Your task to perform on an android device: check out phone information Image 0: 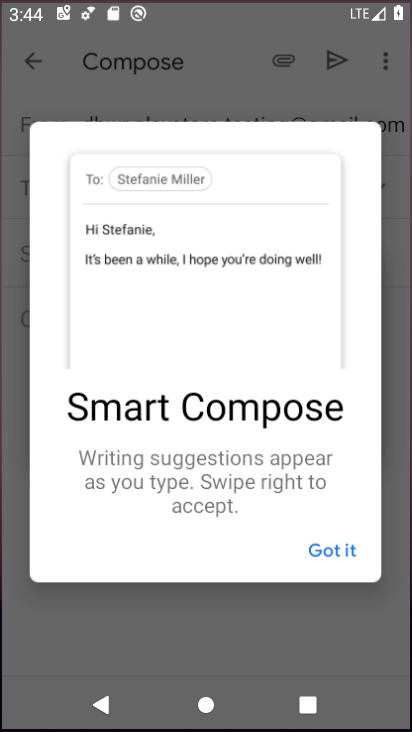
Step 0: drag from (359, 452) to (196, 8)
Your task to perform on an android device: check out phone information Image 1: 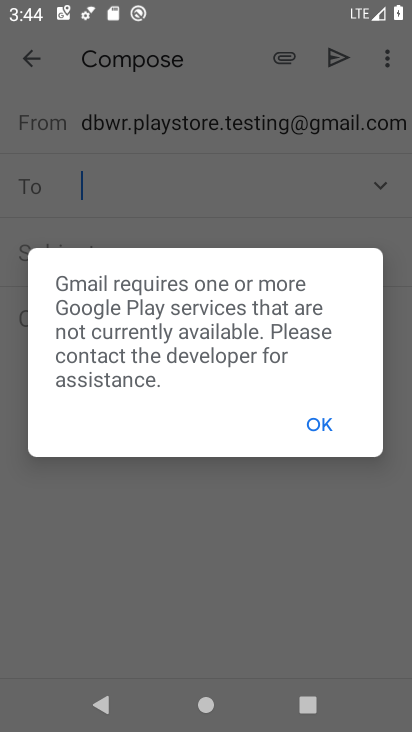
Step 1: press home button
Your task to perform on an android device: check out phone information Image 2: 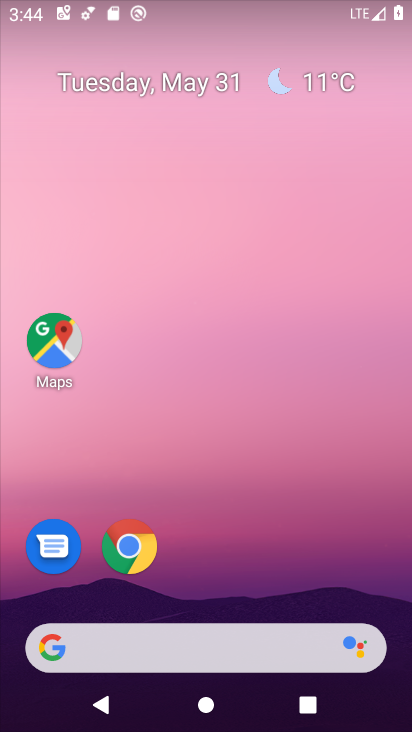
Step 2: drag from (274, 515) to (233, 25)
Your task to perform on an android device: check out phone information Image 3: 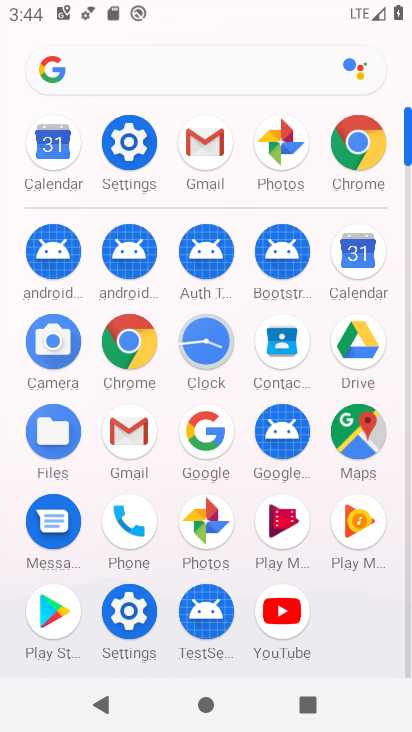
Step 3: click (140, 133)
Your task to perform on an android device: check out phone information Image 4: 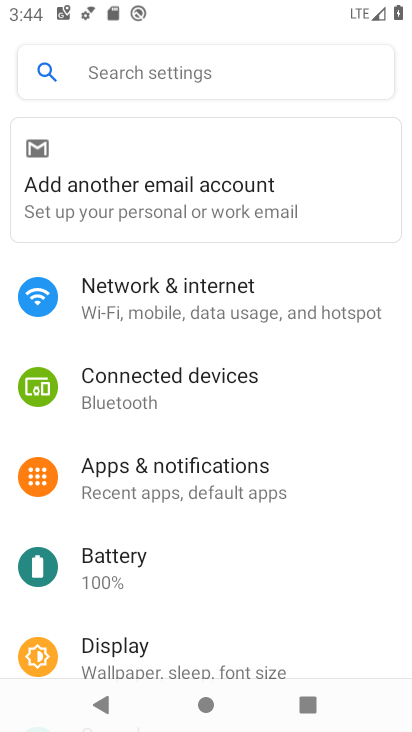
Step 4: drag from (253, 494) to (220, 104)
Your task to perform on an android device: check out phone information Image 5: 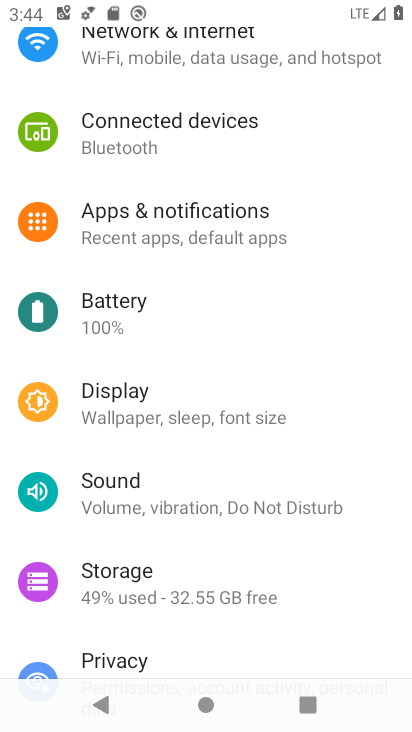
Step 5: drag from (267, 649) to (271, 161)
Your task to perform on an android device: check out phone information Image 6: 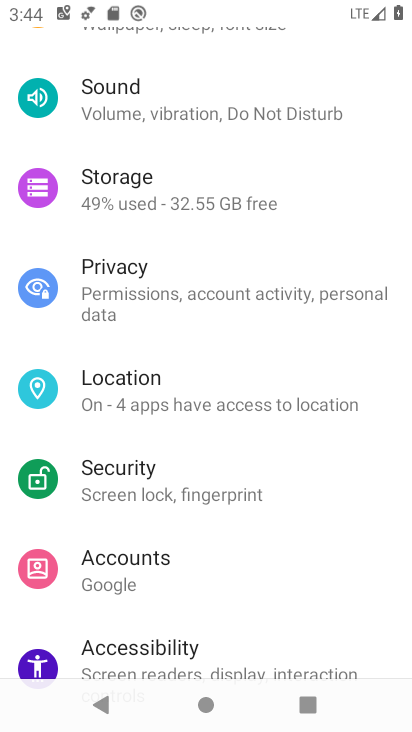
Step 6: drag from (240, 637) to (306, 231)
Your task to perform on an android device: check out phone information Image 7: 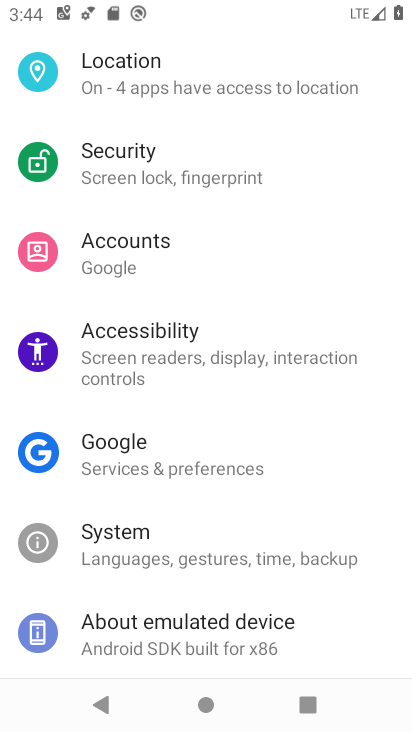
Step 7: click (191, 632)
Your task to perform on an android device: check out phone information Image 8: 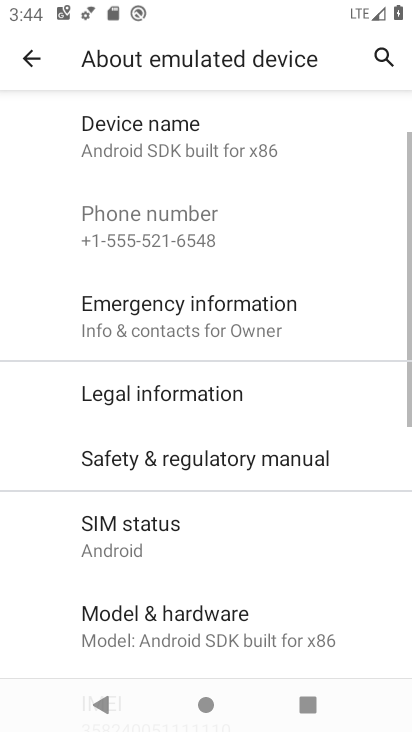
Step 8: task complete